Your task to perform on an android device: turn on data saver in the chrome app Image 0: 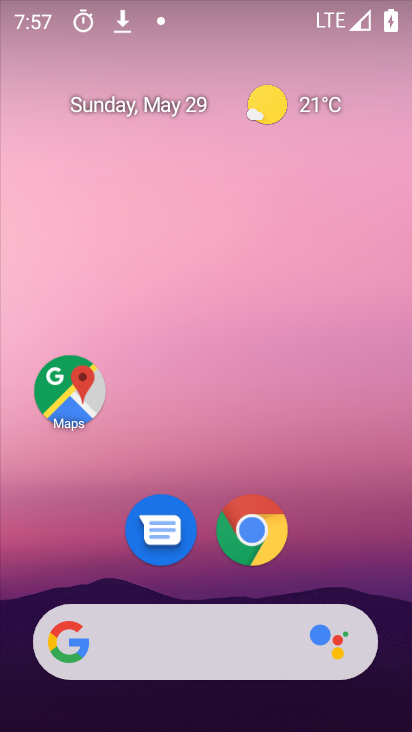
Step 0: drag from (270, 683) to (190, 220)
Your task to perform on an android device: turn on data saver in the chrome app Image 1: 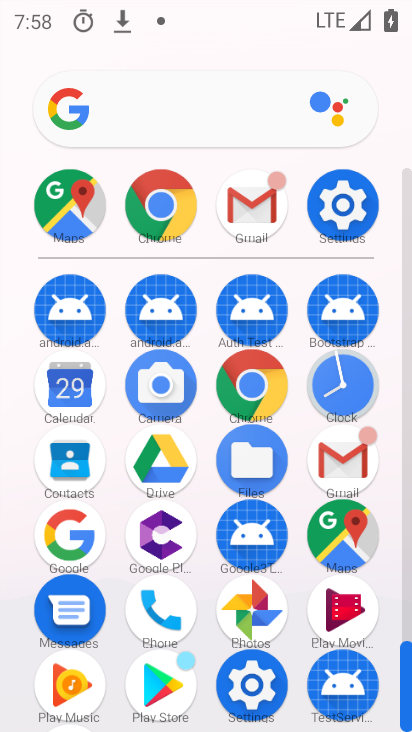
Step 1: click (169, 220)
Your task to perform on an android device: turn on data saver in the chrome app Image 2: 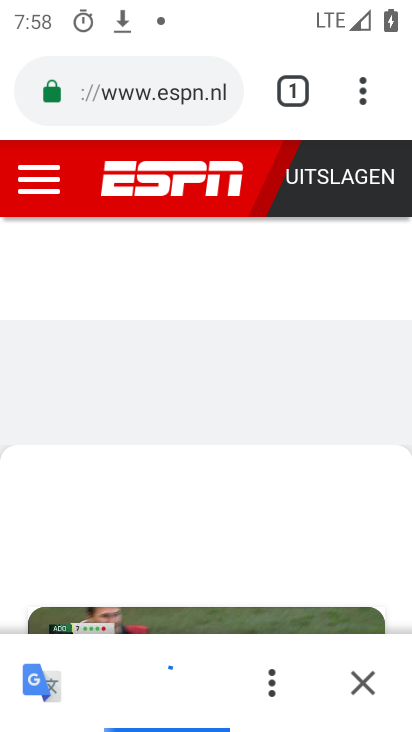
Step 2: click (357, 102)
Your task to perform on an android device: turn on data saver in the chrome app Image 3: 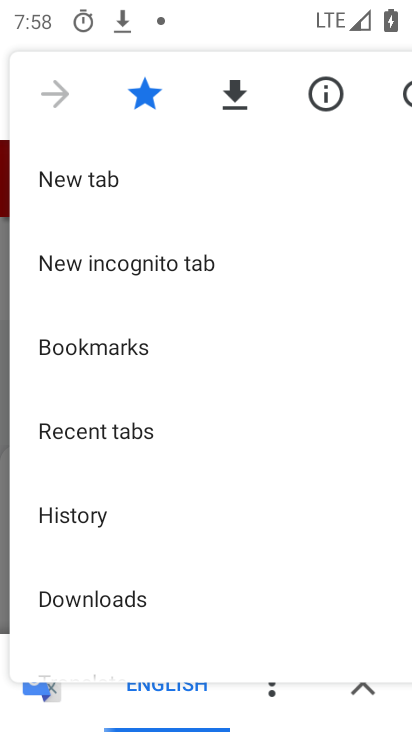
Step 3: drag from (137, 626) to (142, 296)
Your task to perform on an android device: turn on data saver in the chrome app Image 4: 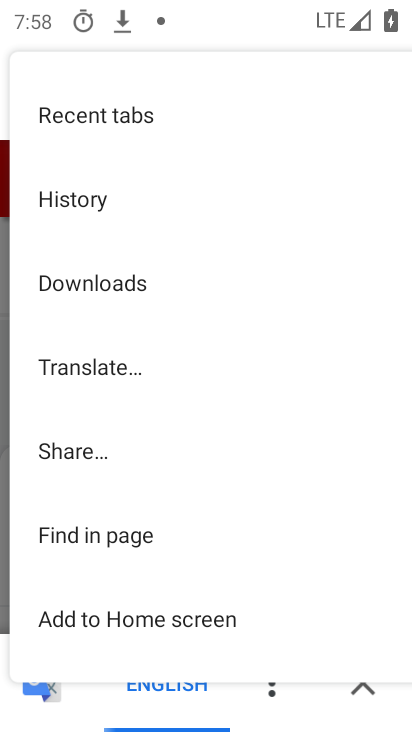
Step 4: drag from (138, 575) to (152, 273)
Your task to perform on an android device: turn on data saver in the chrome app Image 5: 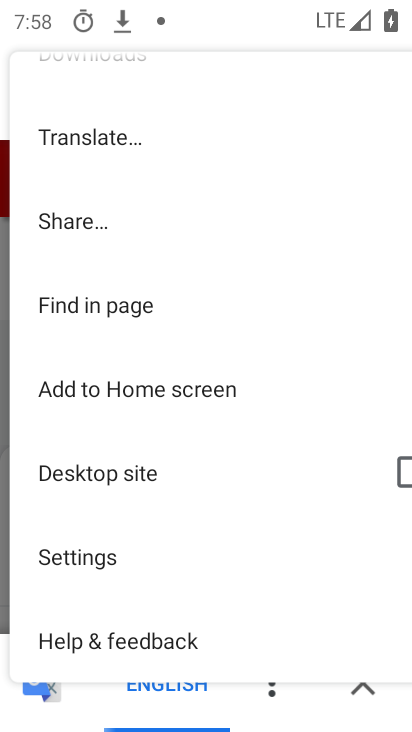
Step 5: click (126, 555)
Your task to perform on an android device: turn on data saver in the chrome app Image 6: 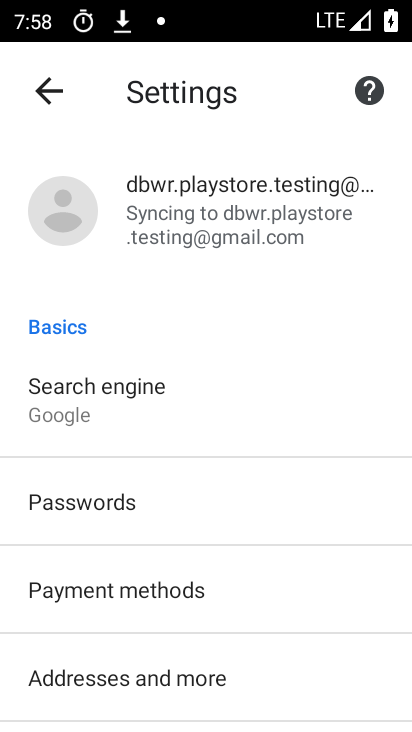
Step 6: drag from (224, 708) to (199, 380)
Your task to perform on an android device: turn on data saver in the chrome app Image 7: 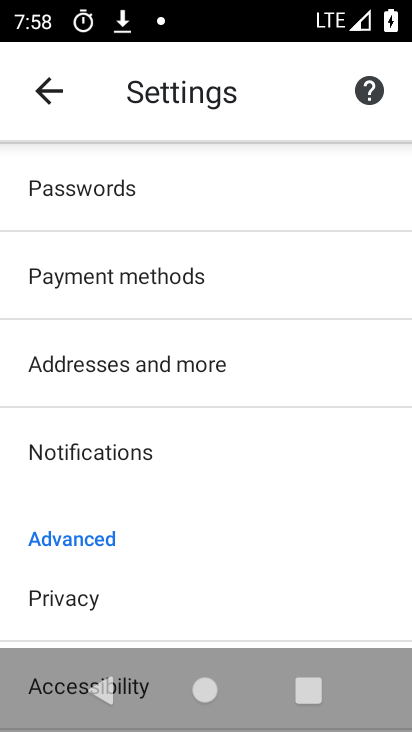
Step 7: drag from (210, 499) to (207, 273)
Your task to perform on an android device: turn on data saver in the chrome app Image 8: 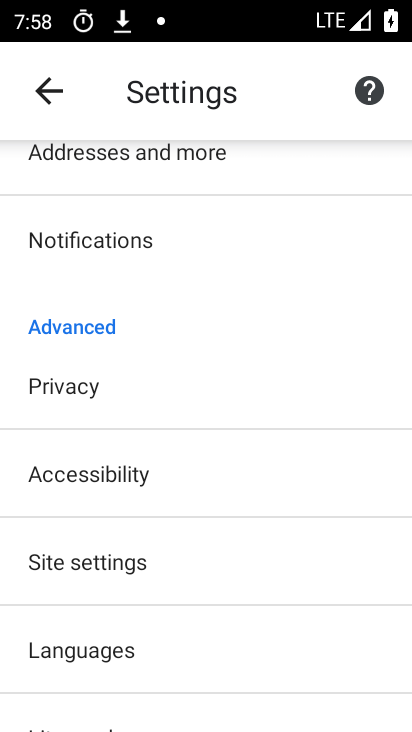
Step 8: drag from (150, 566) to (152, 420)
Your task to perform on an android device: turn on data saver in the chrome app Image 9: 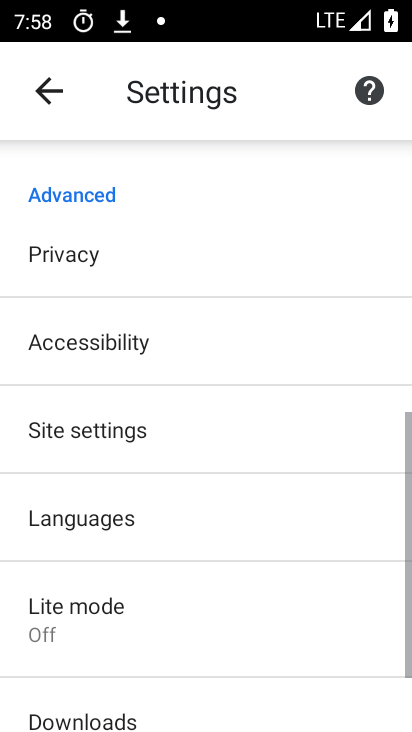
Step 9: click (132, 649)
Your task to perform on an android device: turn on data saver in the chrome app Image 10: 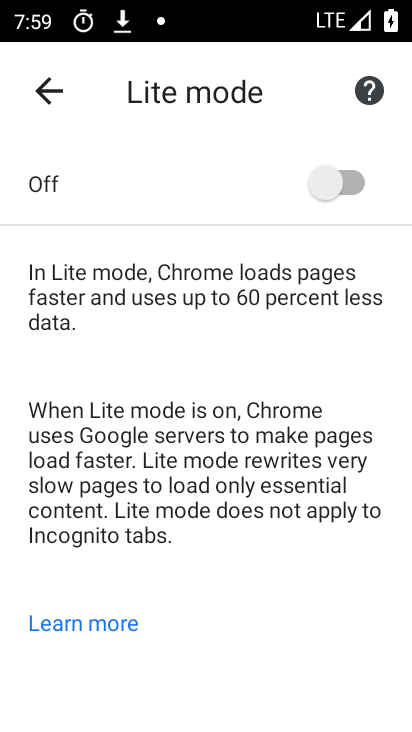
Step 10: click (352, 170)
Your task to perform on an android device: turn on data saver in the chrome app Image 11: 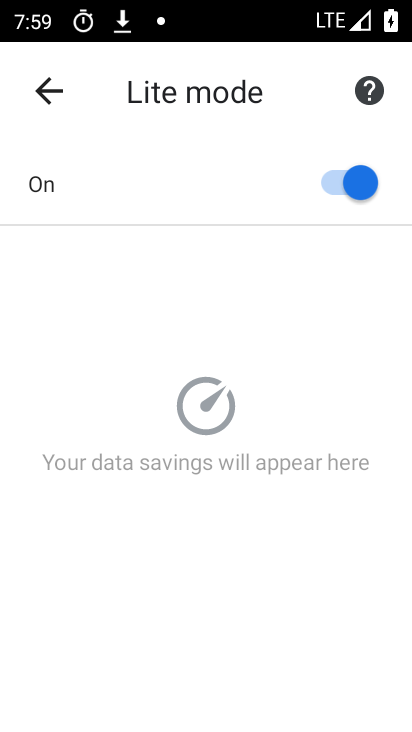
Step 11: task complete